Your task to perform on an android device: When is my next meeting? Image 0: 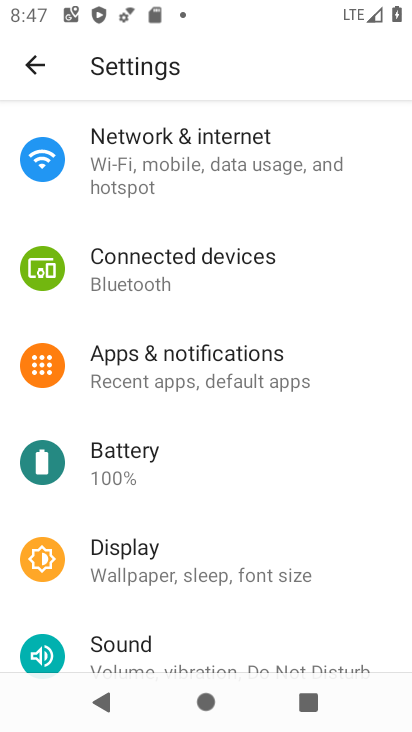
Step 0: press home button
Your task to perform on an android device: When is my next meeting? Image 1: 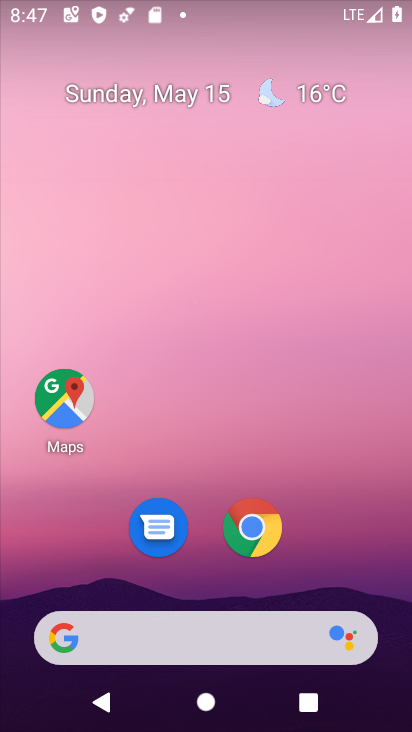
Step 1: drag from (369, 586) to (370, 8)
Your task to perform on an android device: When is my next meeting? Image 2: 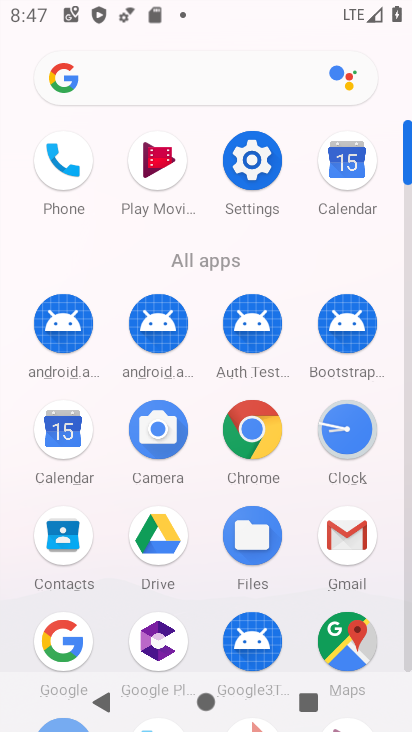
Step 2: click (355, 174)
Your task to perform on an android device: When is my next meeting? Image 3: 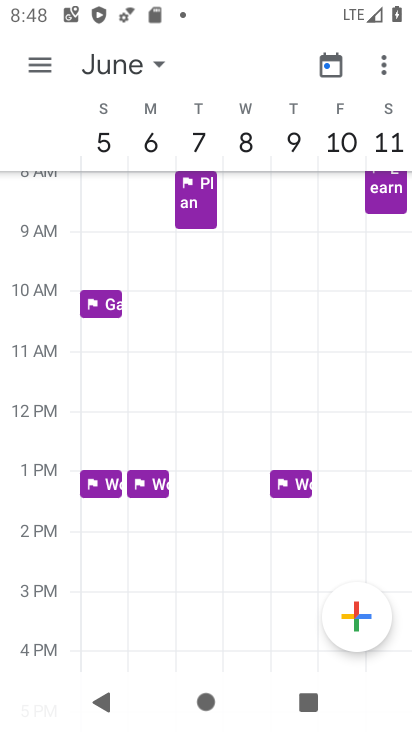
Step 3: click (46, 67)
Your task to perform on an android device: When is my next meeting? Image 4: 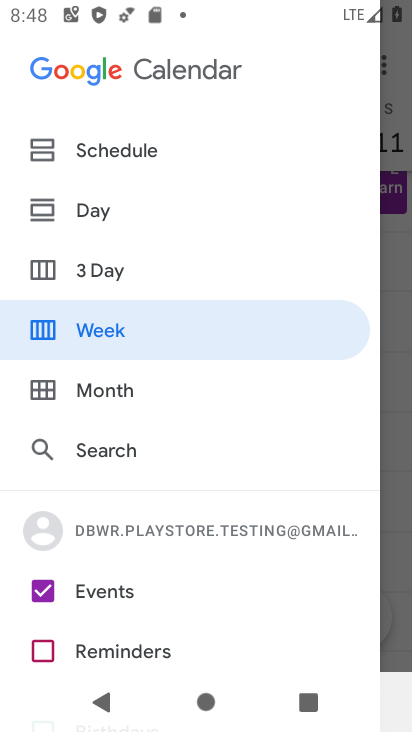
Step 4: click (92, 153)
Your task to perform on an android device: When is my next meeting? Image 5: 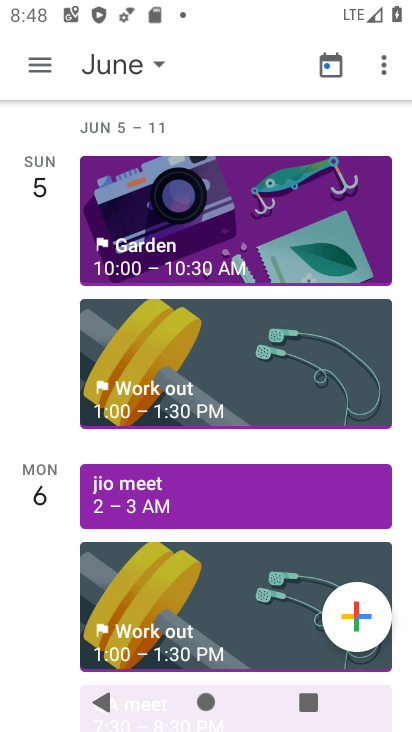
Step 5: click (326, 69)
Your task to perform on an android device: When is my next meeting? Image 6: 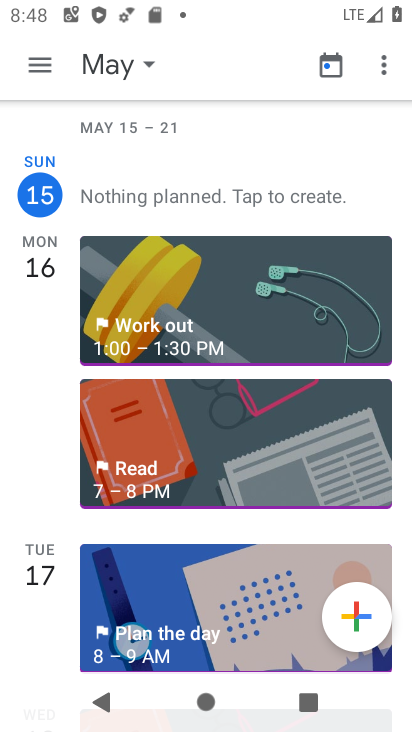
Step 6: drag from (175, 418) to (188, 223)
Your task to perform on an android device: When is my next meeting? Image 7: 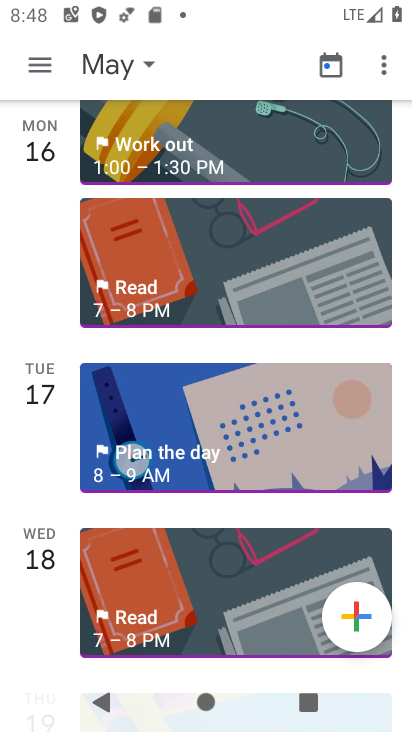
Step 7: drag from (190, 230) to (218, 668)
Your task to perform on an android device: When is my next meeting? Image 8: 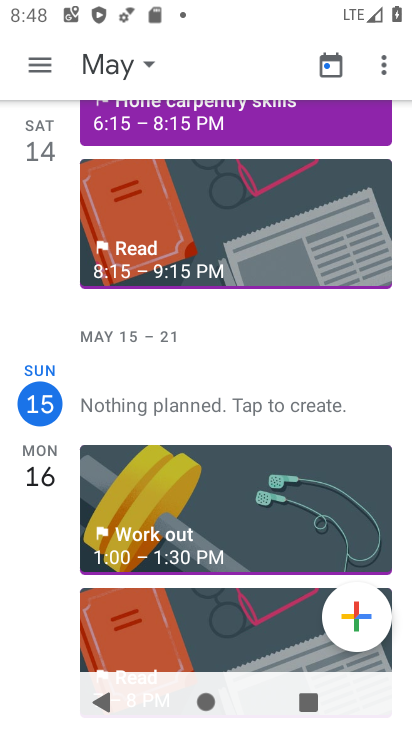
Step 8: drag from (172, 513) to (171, 207)
Your task to perform on an android device: When is my next meeting? Image 9: 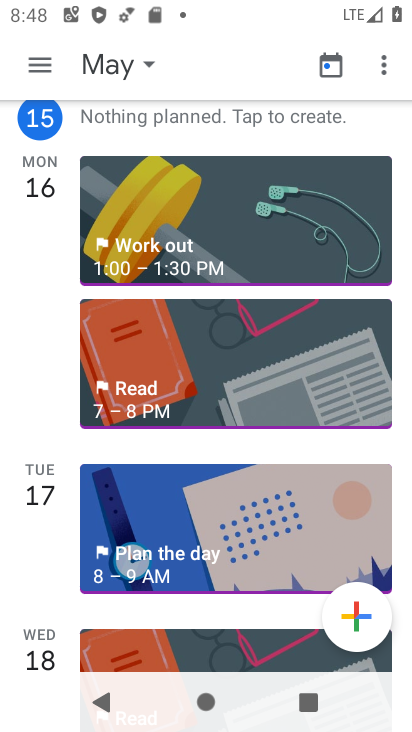
Step 9: click (44, 75)
Your task to perform on an android device: When is my next meeting? Image 10: 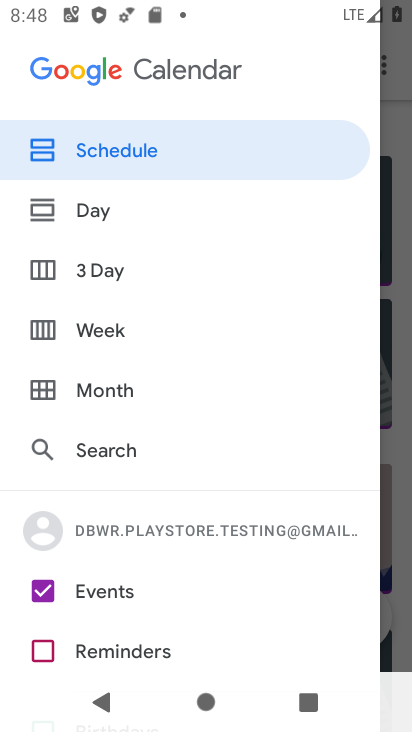
Step 10: click (47, 591)
Your task to perform on an android device: When is my next meeting? Image 11: 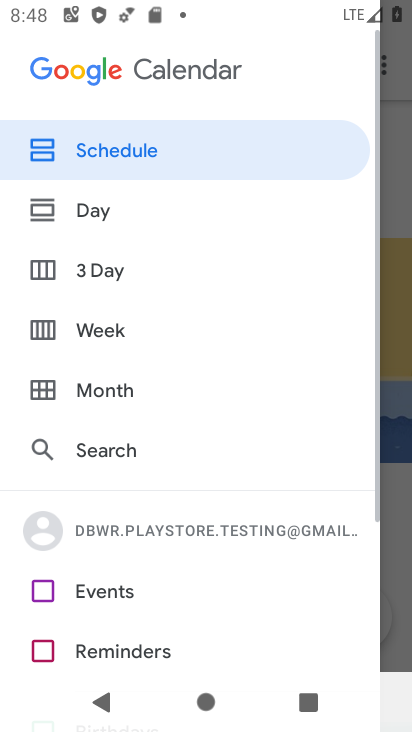
Step 11: click (47, 591)
Your task to perform on an android device: When is my next meeting? Image 12: 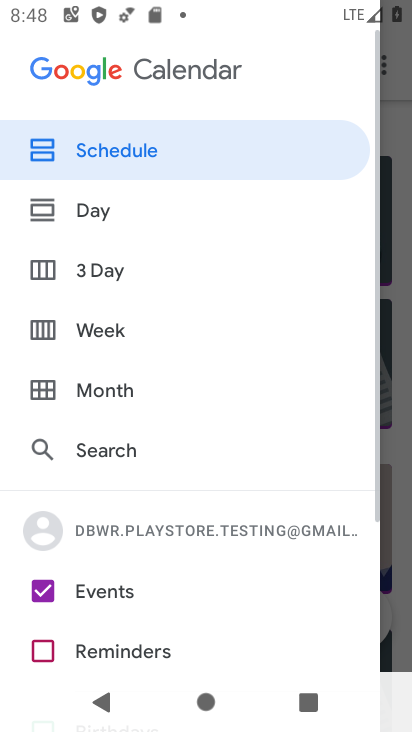
Step 12: click (72, 157)
Your task to perform on an android device: When is my next meeting? Image 13: 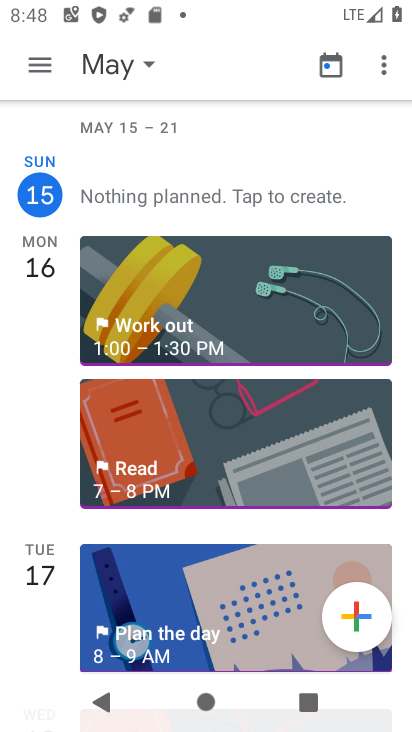
Step 13: drag from (197, 462) to (158, 219)
Your task to perform on an android device: When is my next meeting? Image 14: 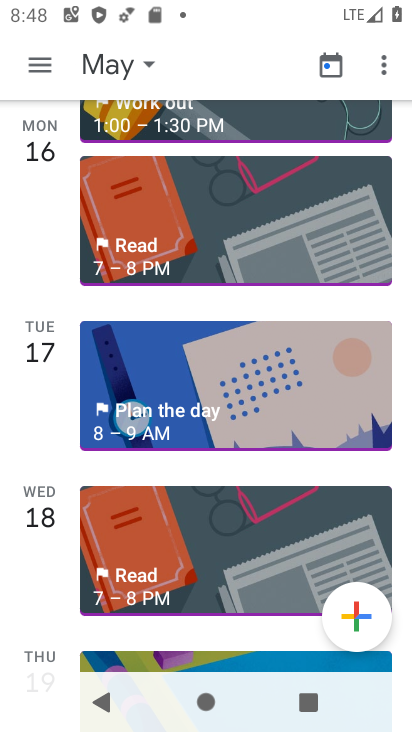
Step 14: drag from (149, 558) to (169, 148)
Your task to perform on an android device: When is my next meeting? Image 15: 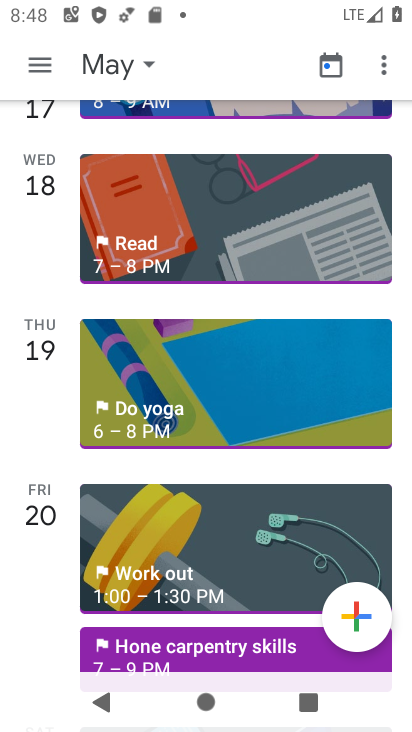
Step 15: drag from (158, 513) to (180, 87)
Your task to perform on an android device: When is my next meeting? Image 16: 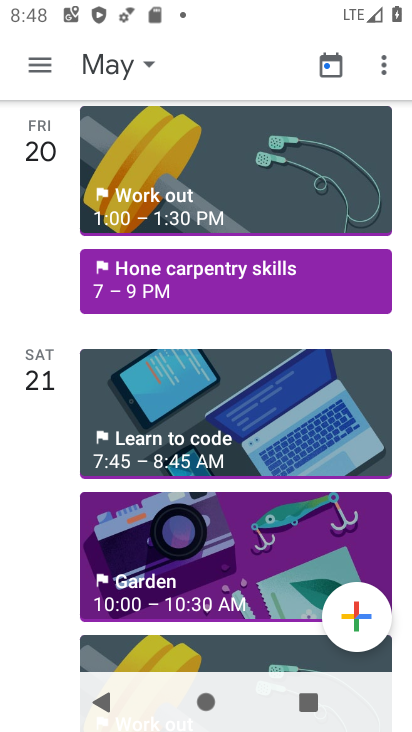
Step 16: click (188, 295)
Your task to perform on an android device: When is my next meeting? Image 17: 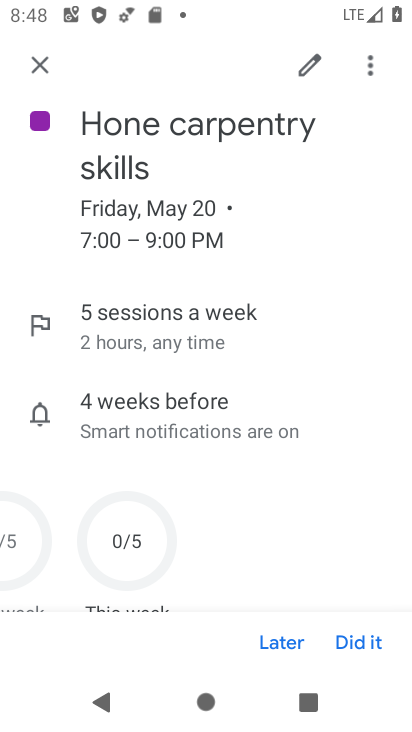
Step 17: task complete